Your task to perform on an android device: Check the weather Image 0: 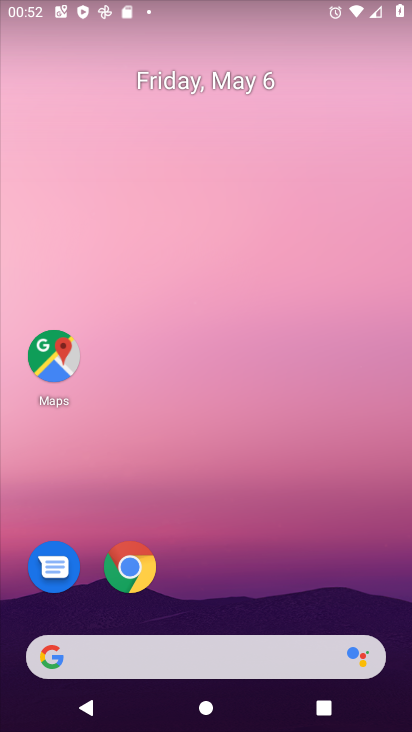
Step 0: drag from (221, 599) to (149, 165)
Your task to perform on an android device: Check the weather Image 1: 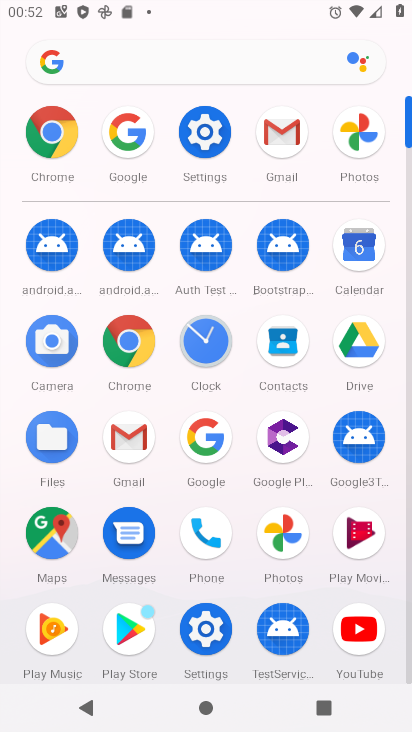
Step 1: click (195, 424)
Your task to perform on an android device: Check the weather Image 2: 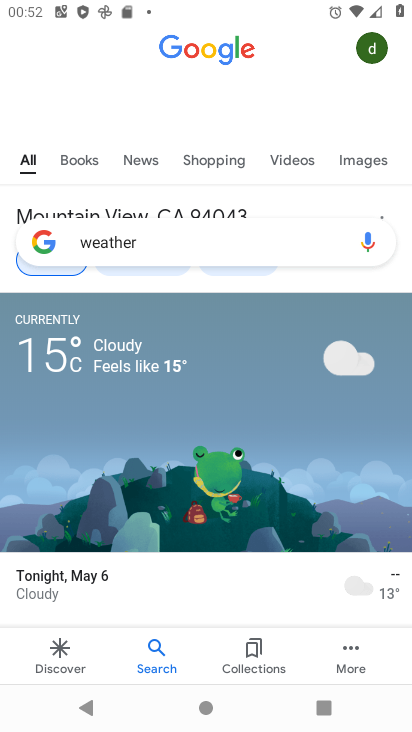
Step 2: click (280, 469)
Your task to perform on an android device: Check the weather Image 3: 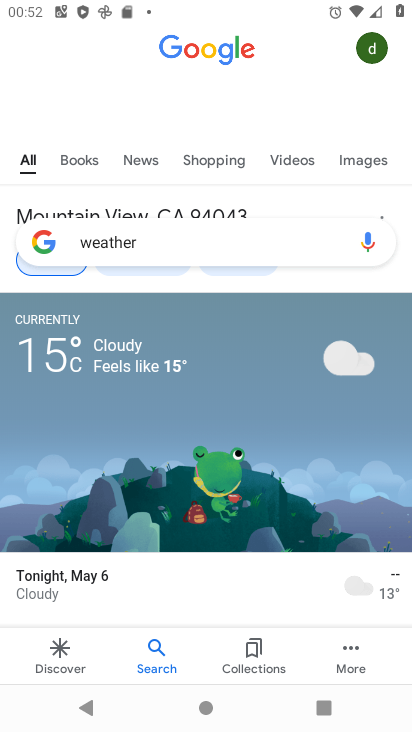
Step 3: task complete